Your task to perform on an android device: toggle sleep mode Image 0: 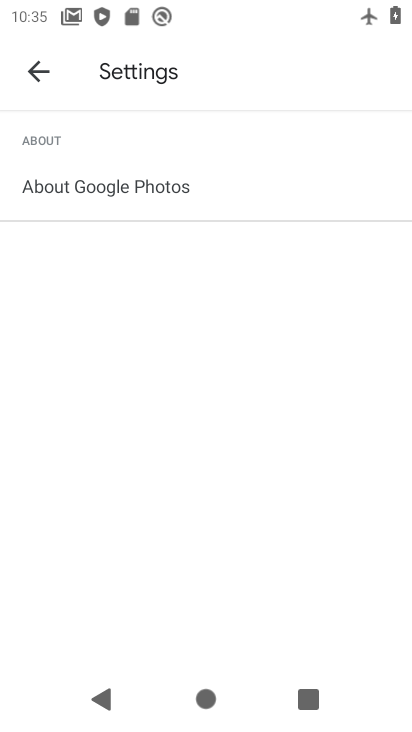
Step 0: press home button
Your task to perform on an android device: toggle sleep mode Image 1: 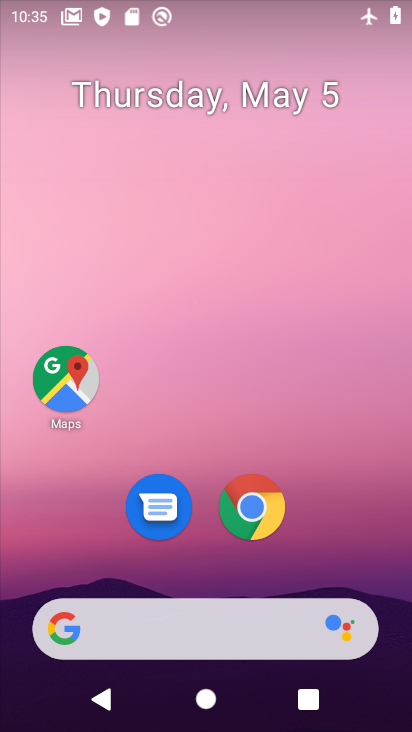
Step 1: drag from (341, 590) to (393, 0)
Your task to perform on an android device: toggle sleep mode Image 2: 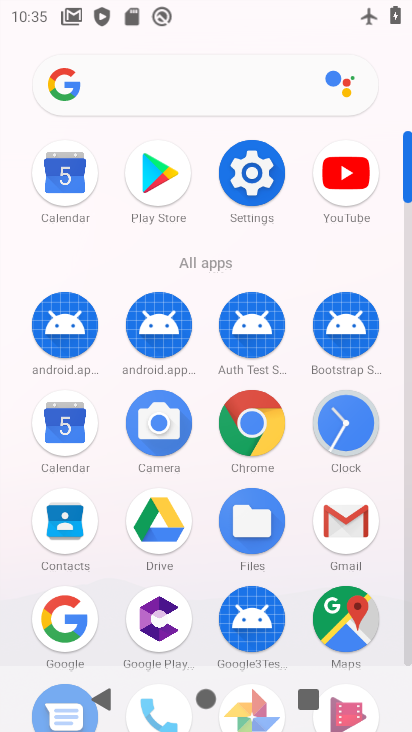
Step 2: click (255, 173)
Your task to perform on an android device: toggle sleep mode Image 3: 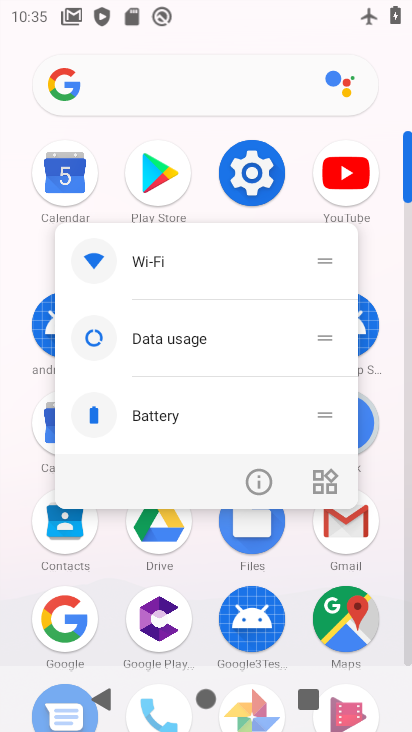
Step 3: click (252, 170)
Your task to perform on an android device: toggle sleep mode Image 4: 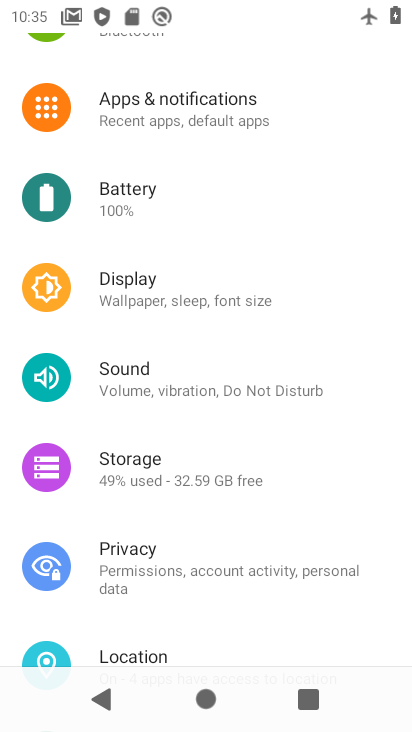
Step 4: click (131, 295)
Your task to perform on an android device: toggle sleep mode Image 5: 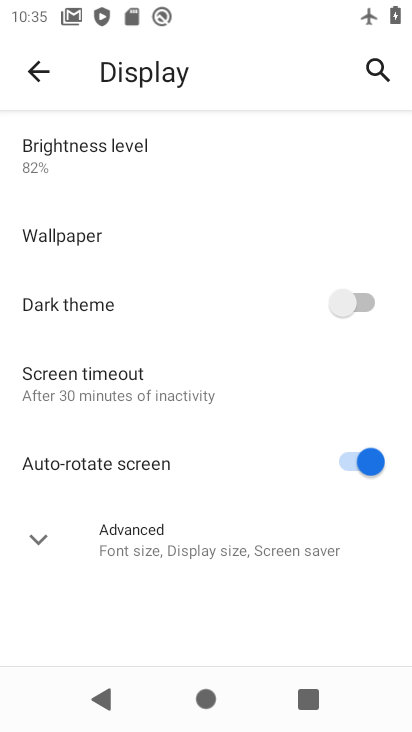
Step 5: click (39, 549)
Your task to perform on an android device: toggle sleep mode Image 6: 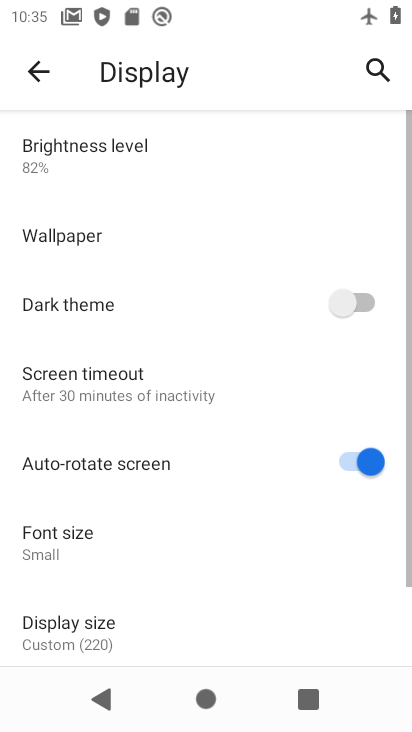
Step 6: task complete